Your task to perform on an android device: star an email in the gmail app Image 0: 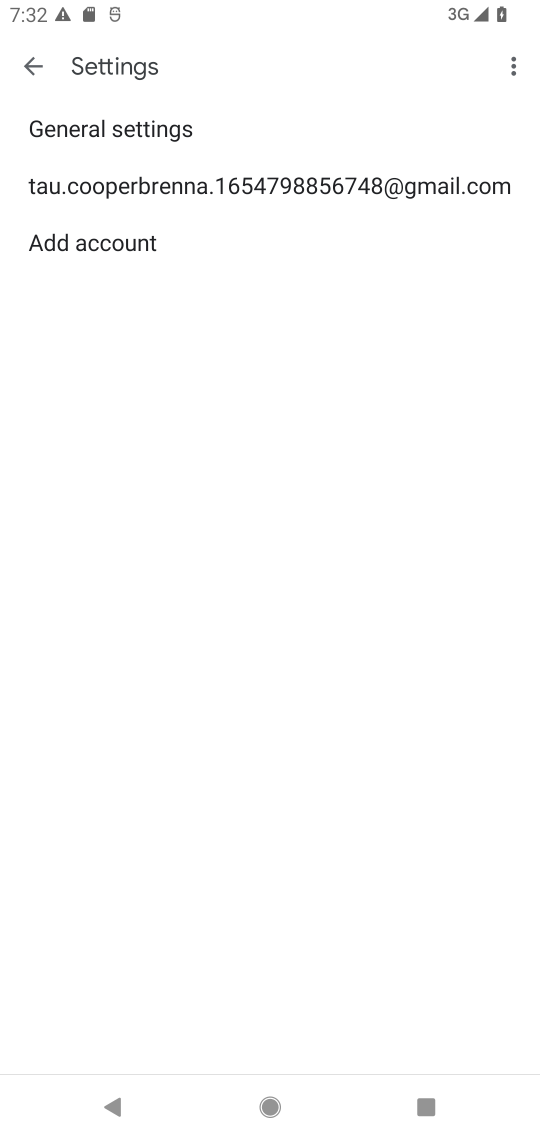
Step 0: press home button
Your task to perform on an android device: star an email in the gmail app Image 1: 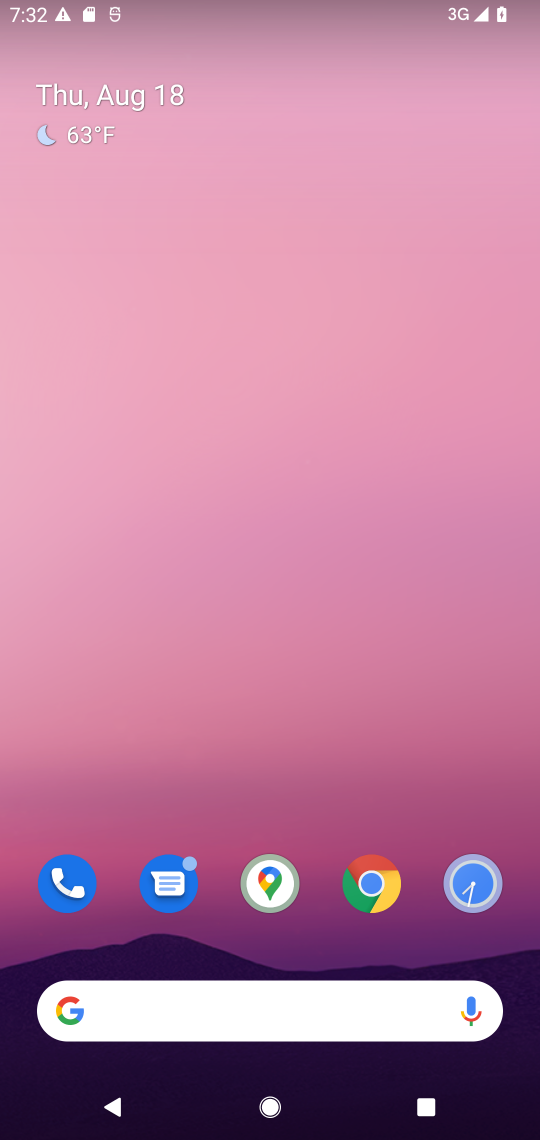
Step 1: drag from (39, 1088) to (204, 436)
Your task to perform on an android device: star an email in the gmail app Image 2: 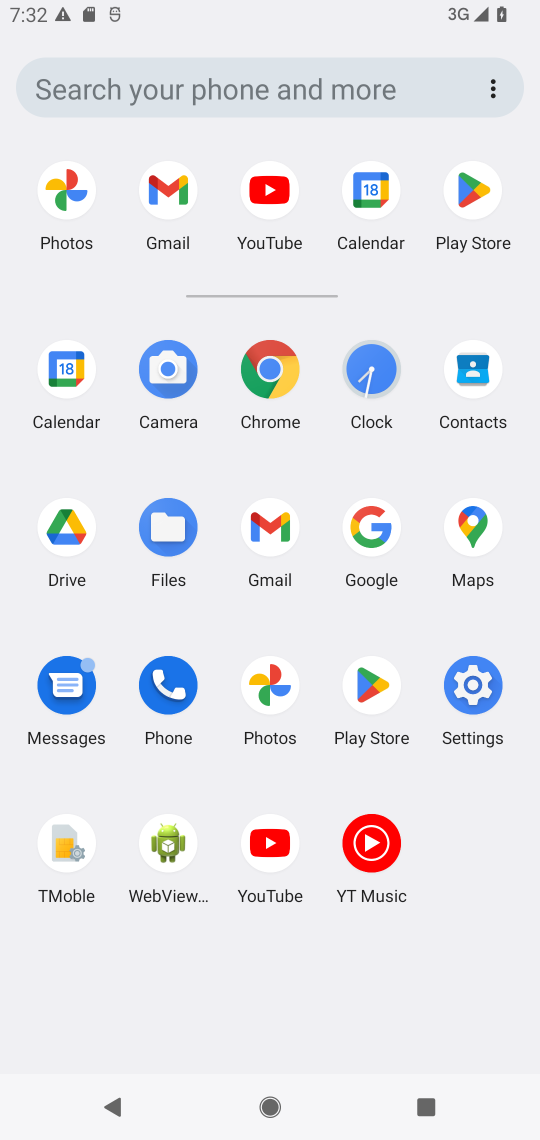
Step 2: click (274, 558)
Your task to perform on an android device: star an email in the gmail app Image 3: 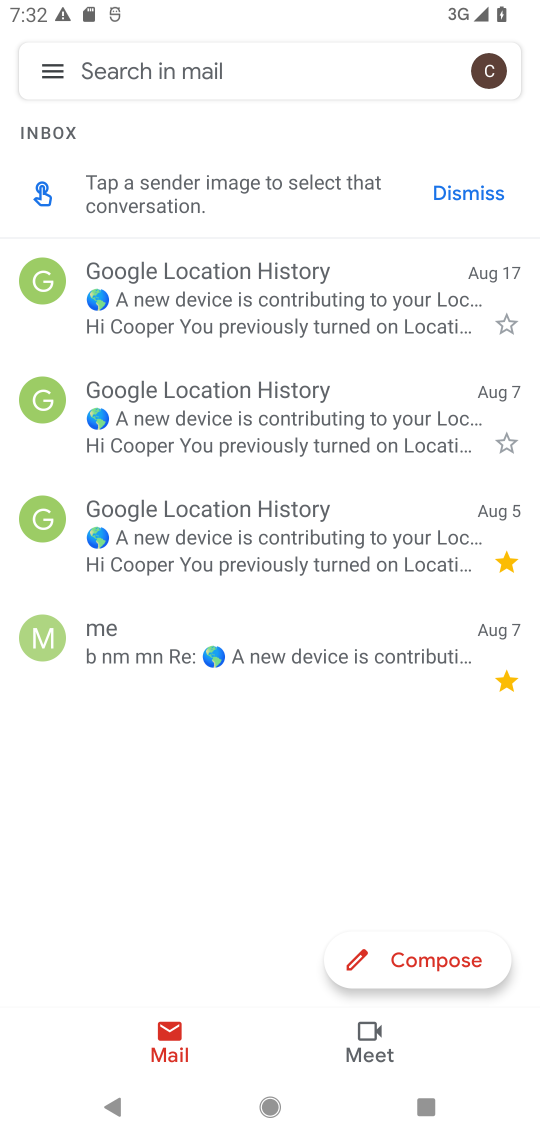
Step 3: click (55, 81)
Your task to perform on an android device: star an email in the gmail app Image 4: 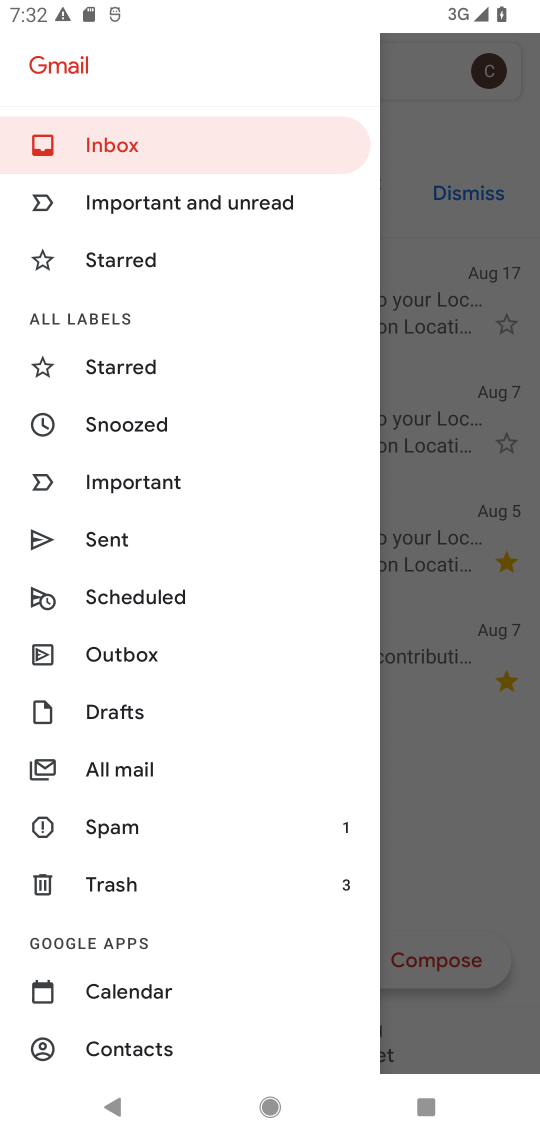
Step 4: click (117, 366)
Your task to perform on an android device: star an email in the gmail app Image 5: 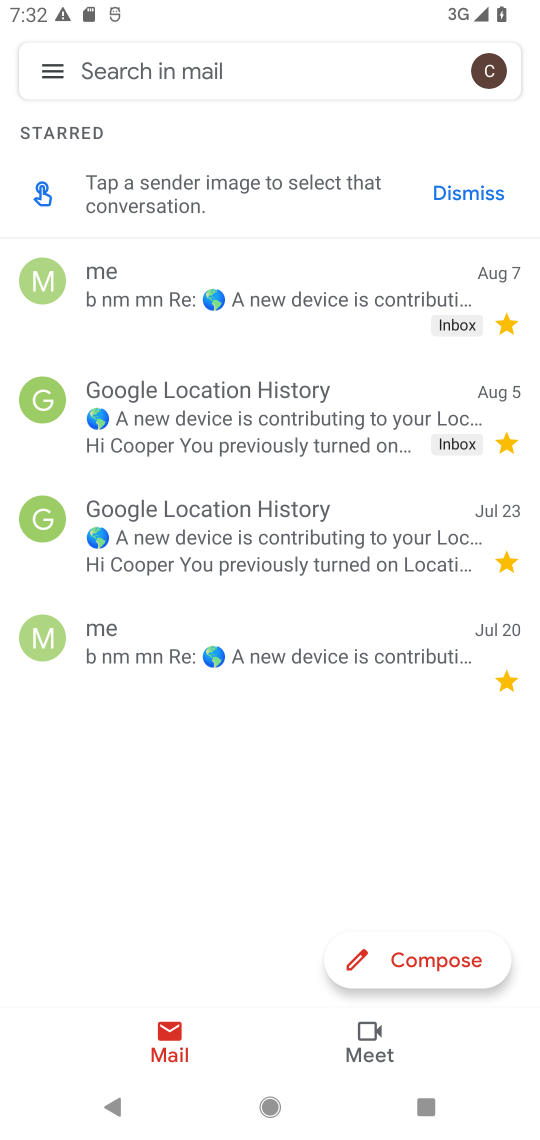
Step 5: task complete